Your task to perform on an android device: turn on bluetooth scan Image 0: 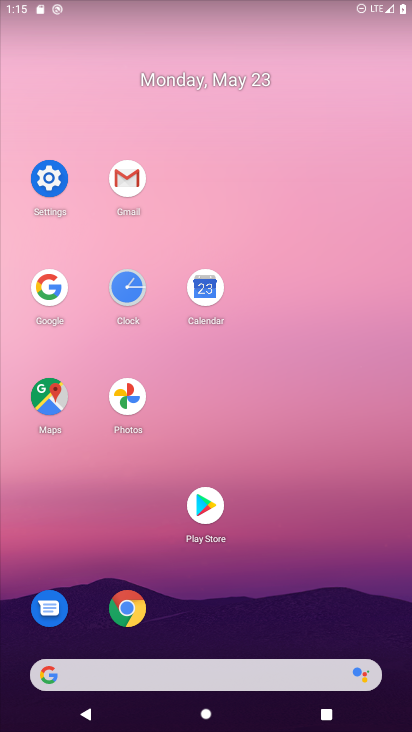
Step 0: click (59, 178)
Your task to perform on an android device: turn on bluetooth scan Image 1: 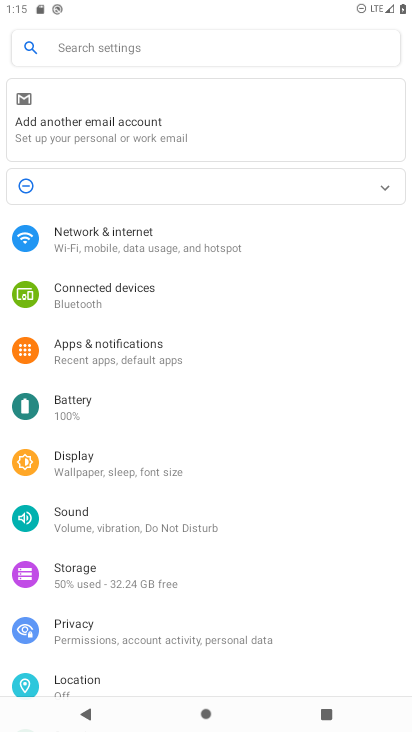
Step 1: click (117, 683)
Your task to perform on an android device: turn on bluetooth scan Image 2: 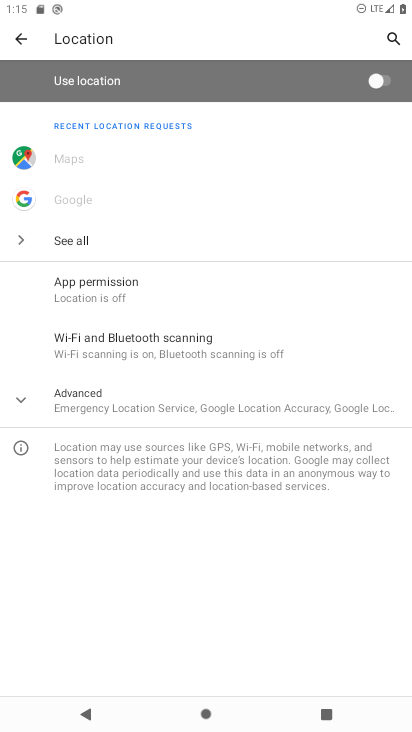
Step 2: click (198, 354)
Your task to perform on an android device: turn on bluetooth scan Image 3: 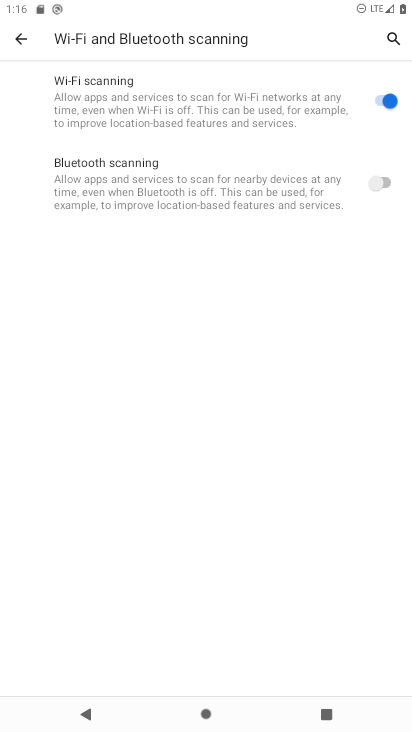
Step 3: click (377, 192)
Your task to perform on an android device: turn on bluetooth scan Image 4: 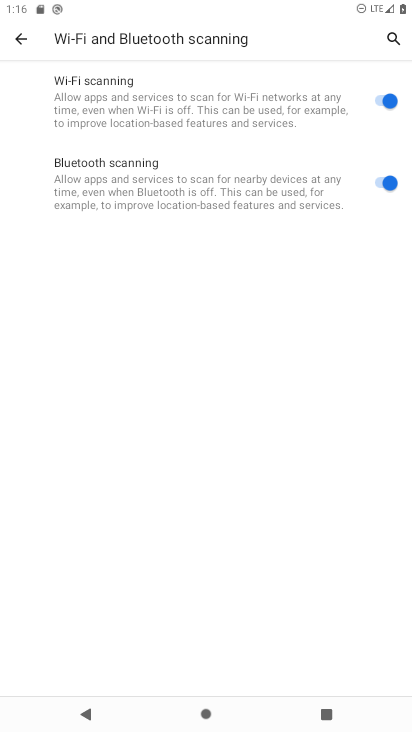
Step 4: task complete